Your task to perform on an android device: check battery use Image 0: 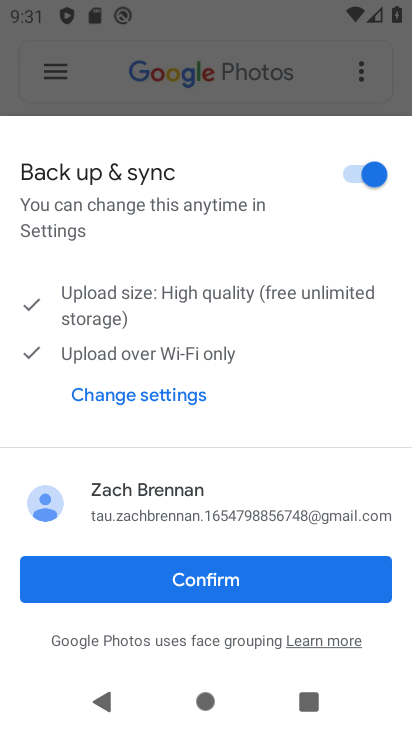
Step 0: press home button
Your task to perform on an android device: check battery use Image 1: 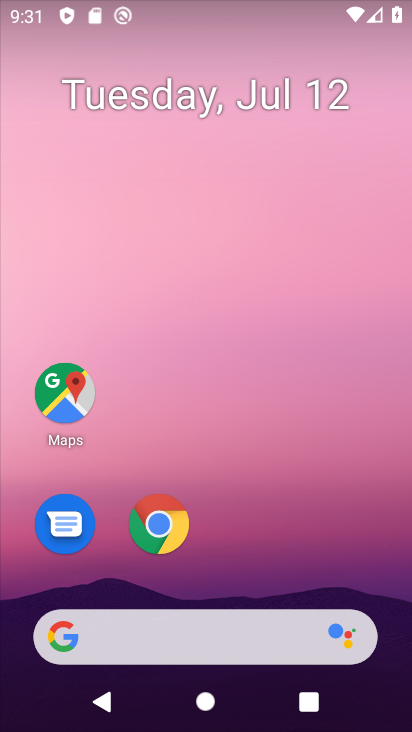
Step 1: drag from (237, 558) to (242, 52)
Your task to perform on an android device: check battery use Image 2: 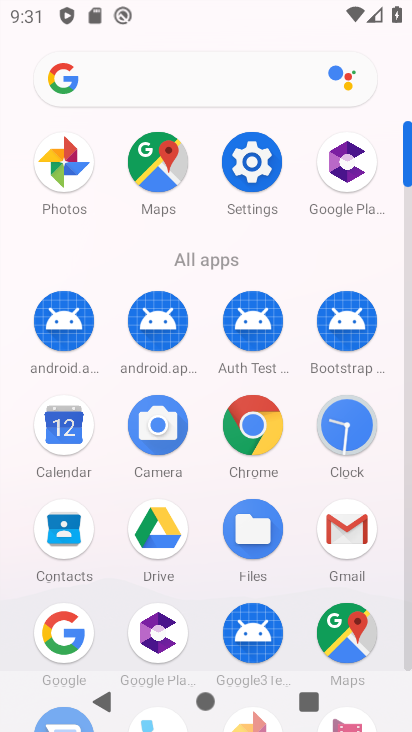
Step 2: click (259, 158)
Your task to perform on an android device: check battery use Image 3: 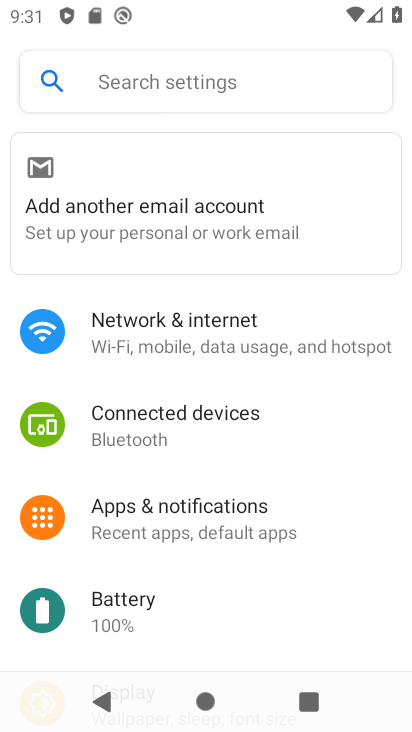
Step 3: click (151, 601)
Your task to perform on an android device: check battery use Image 4: 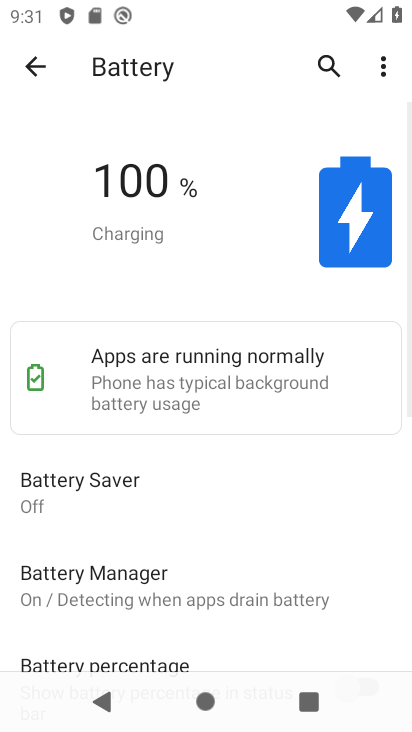
Step 4: click (389, 65)
Your task to perform on an android device: check battery use Image 5: 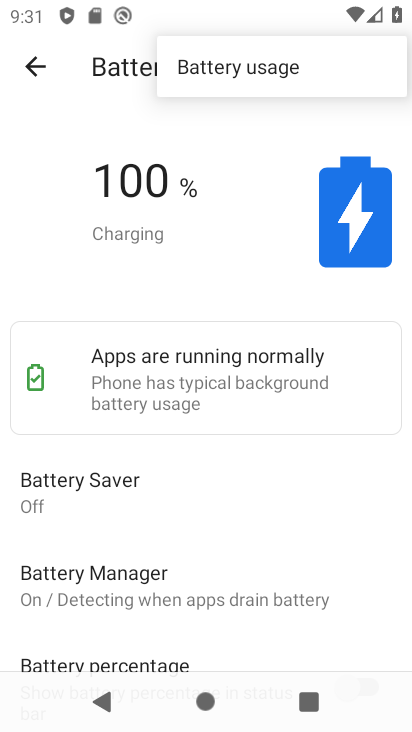
Step 5: click (305, 73)
Your task to perform on an android device: check battery use Image 6: 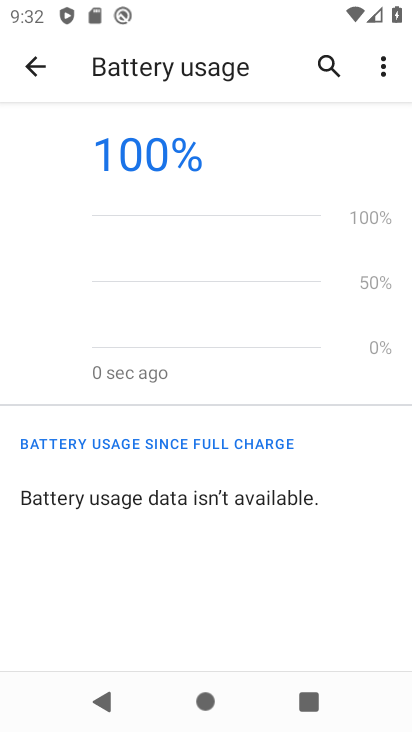
Step 6: task complete